Your task to perform on an android device: open sync settings in chrome Image 0: 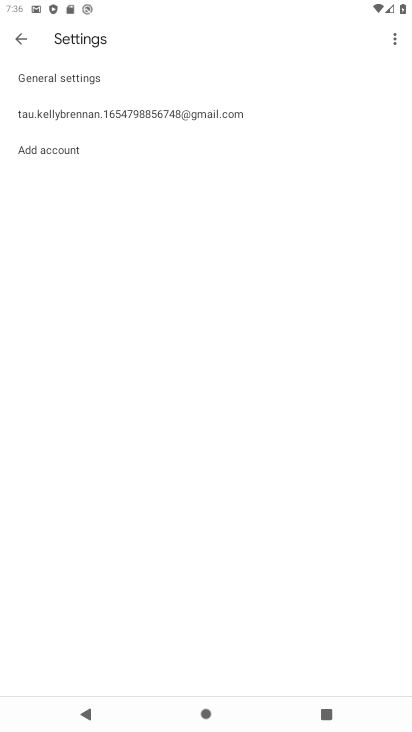
Step 0: press home button
Your task to perform on an android device: open sync settings in chrome Image 1: 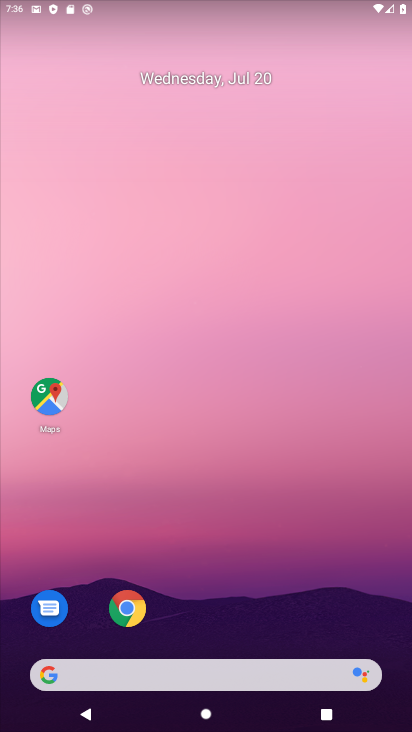
Step 1: click (133, 610)
Your task to perform on an android device: open sync settings in chrome Image 2: 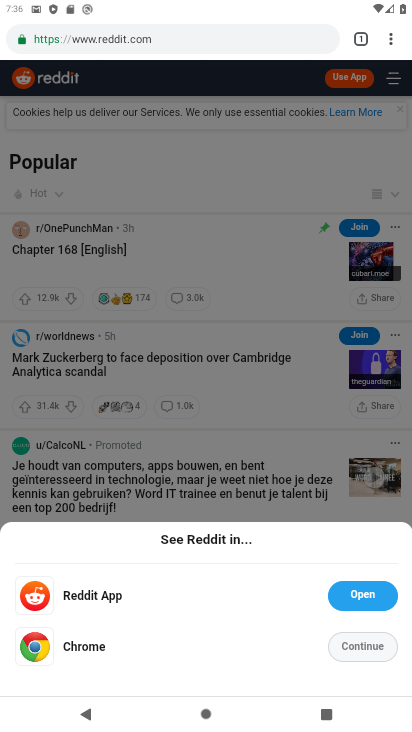
Step 2: press back button
Your task to perform on an android device: open sync settings in chrome Image 3: 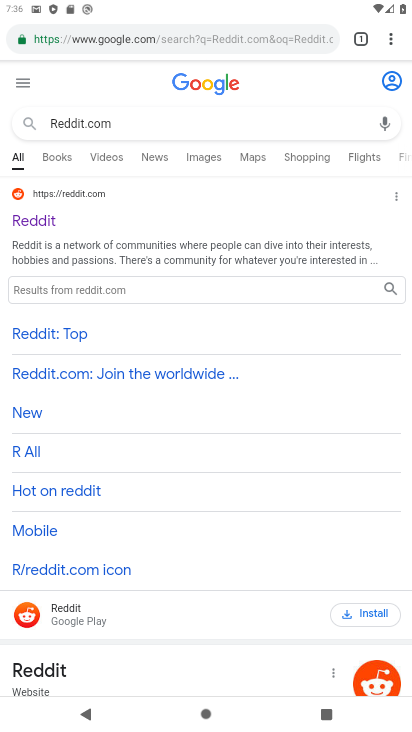
Step 3: press back button
Your task to perform on an android device: open sync settings in chrome Image 4: 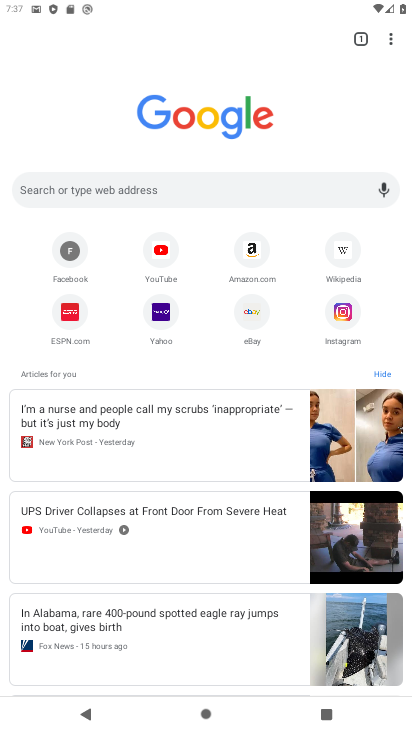
Step 4: click (390, 40)
Your task to perform on an android device: open sync settings in chrome Image 5: 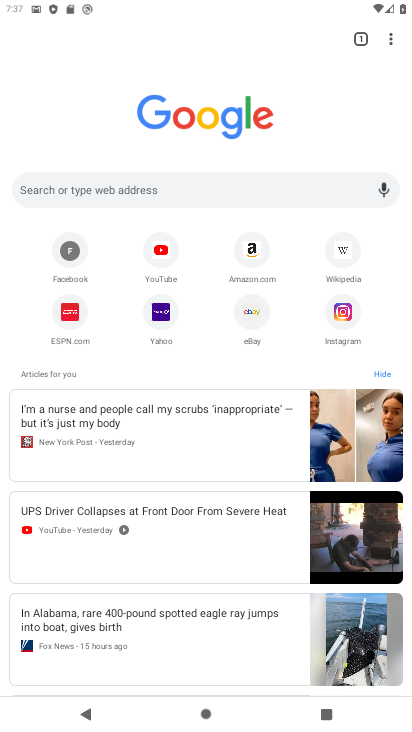
Step 5: click (390, 40)
Your task to perform on an android device: open sync settings in chrome Image 6: 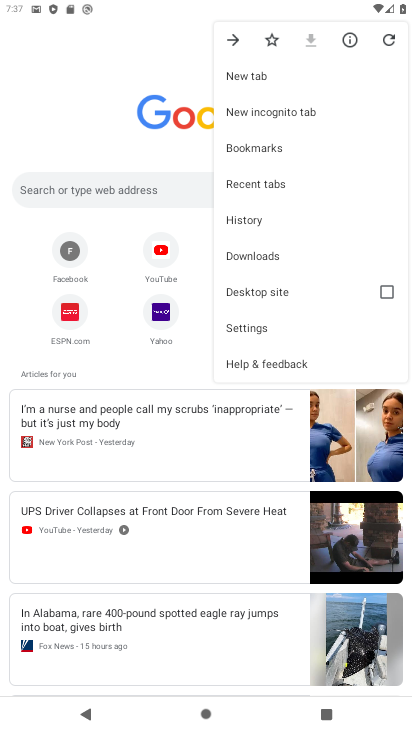
Step 6: click (246, 318)
Your task to perform on an android device: open sync settings in chrome Image 7: 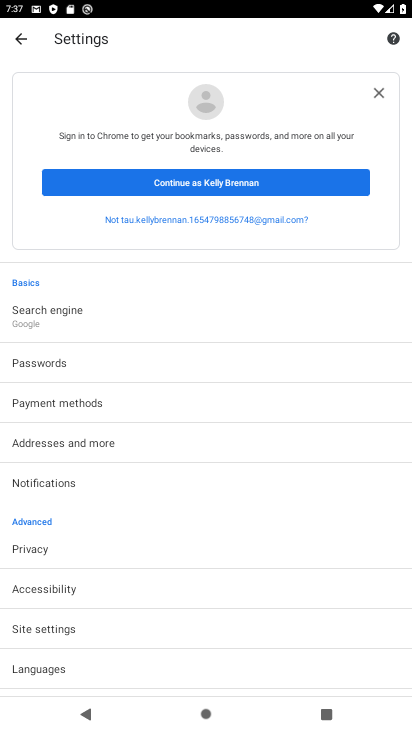
Step 7: drag from (1, 415) to (101, 134)
Your task to perform on an android device: open sync settings in chrome Image 8: 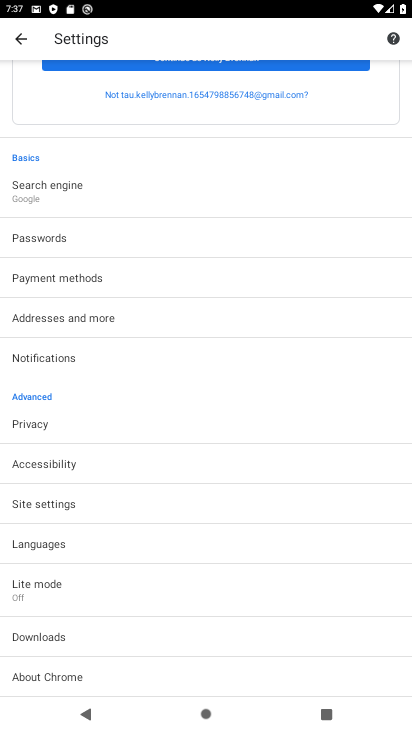
Step 8: click (78, 502)
Your task to perform on an android device: open sync settings in chrome Image 9: 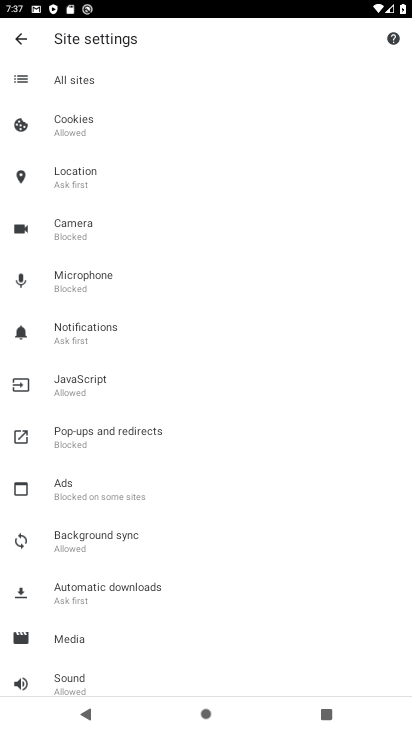
Step 9: click (81, 534)
Your task to perform on an android device: open sync settings in chrome Image 10: 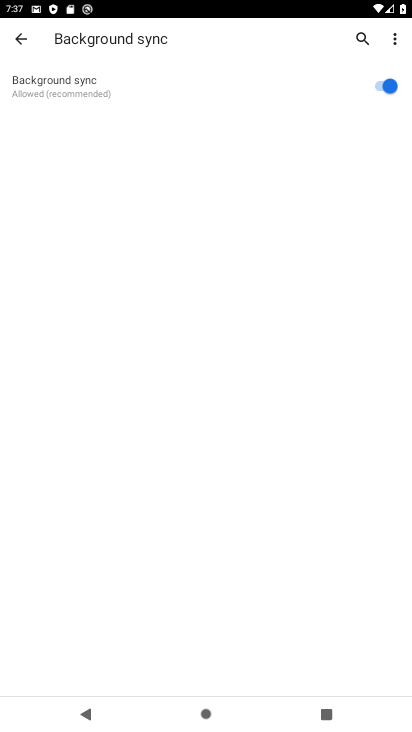
Step 10: task complete